Your task to perform on an android device: Do I have any events today? Image 0: 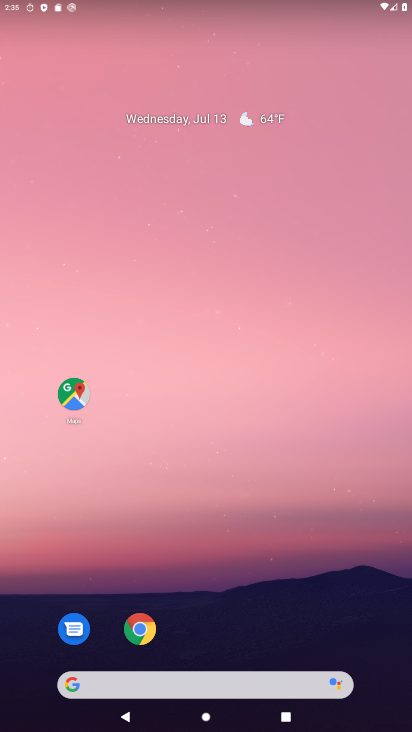
Step 0: drag from (305, 680) to (406, 437)
Your task to perform on an android device: Do I have any events today? Image 1: 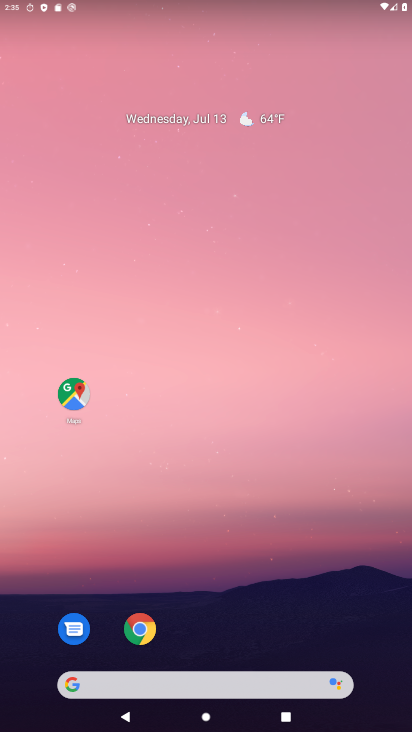
Step 1: drag from (238, 676) to (328, 205)
Your task to perform on an android device: Do I have any events today? Image 2: 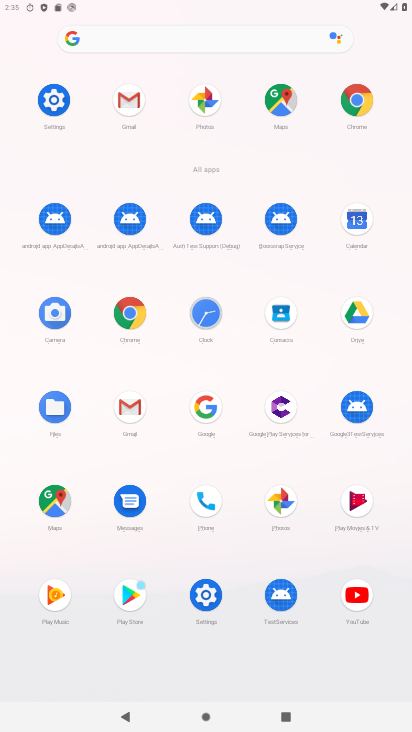
Step 2: click (361, 226)
Your task to perform on an android device: Do I have any events today? Image 3: 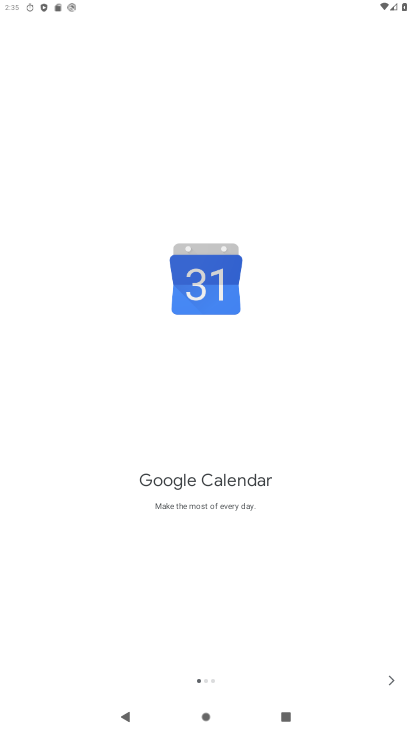
Step 3: click (383, 678)
Your task to perform on an android device: Do I have any events today? Image 4: 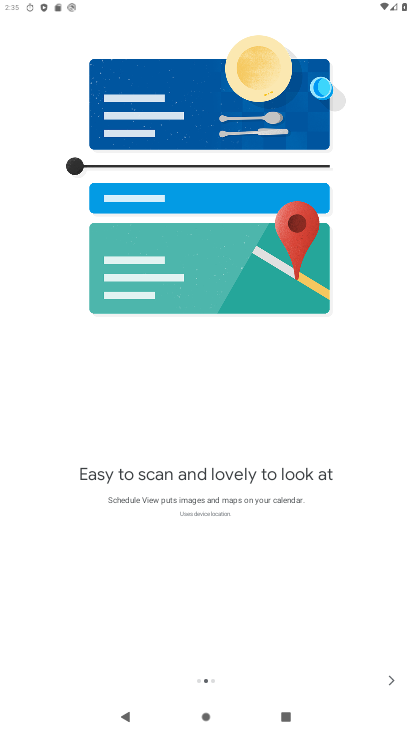
Step 4: click (383, 678)
Your task to perform on an android device: Do I have any events today? Image 5: 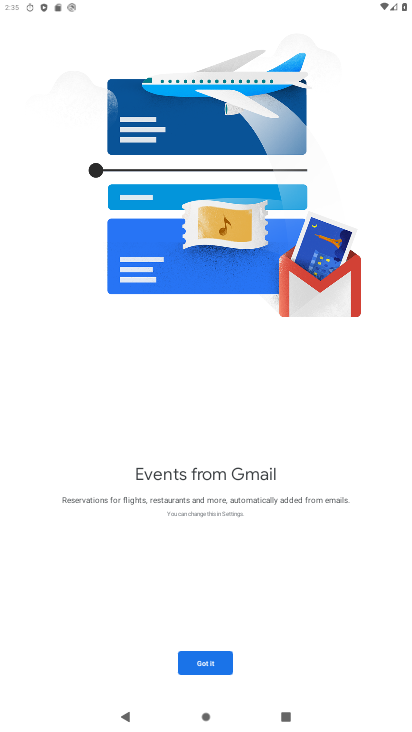
Step 5: click (221, 665)
Your task to perform on an android device: Do I have any events today? Image 6: 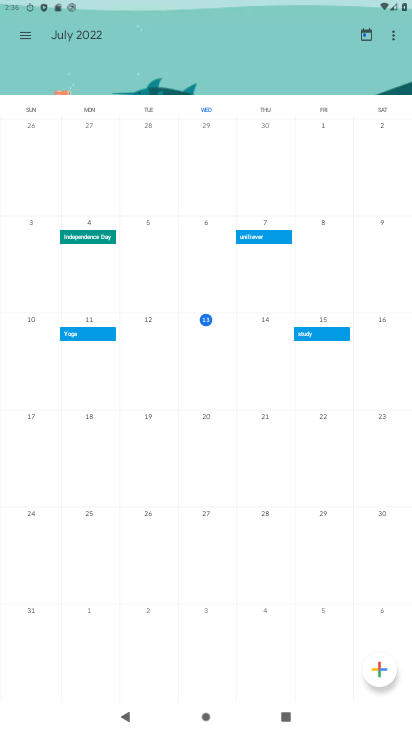
Step 6: click (200, 321)
Your task to perform on an android device: Do I have any events today? Image 7: 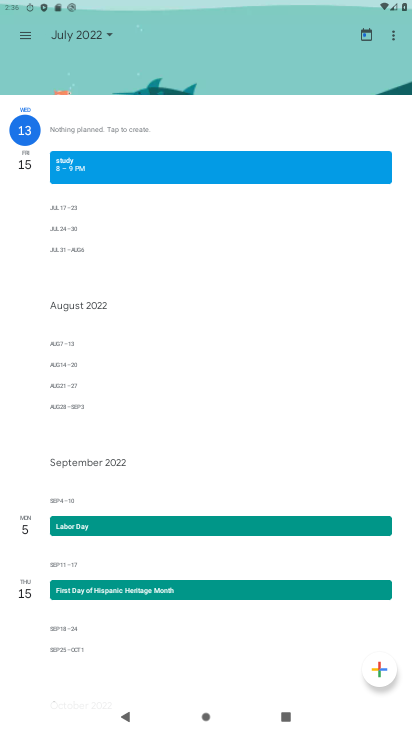
Step 7: task complete